Your task to perform on an android device: turn off smart reply in the gmail app Image 0: 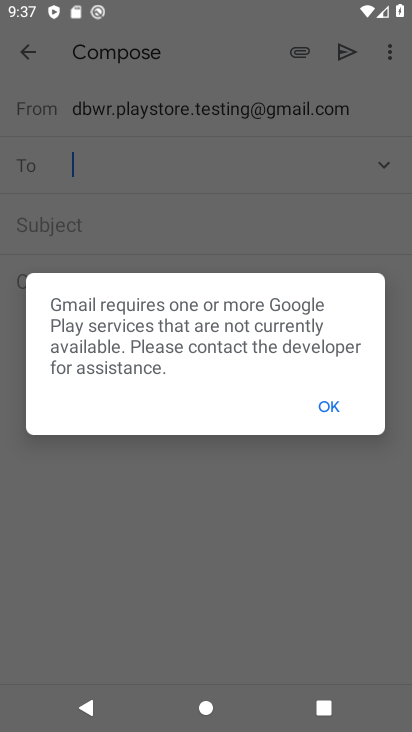
Step 0: press home button
Your task to perform on an android device: turn off smart reply in the gmail app Image 1: 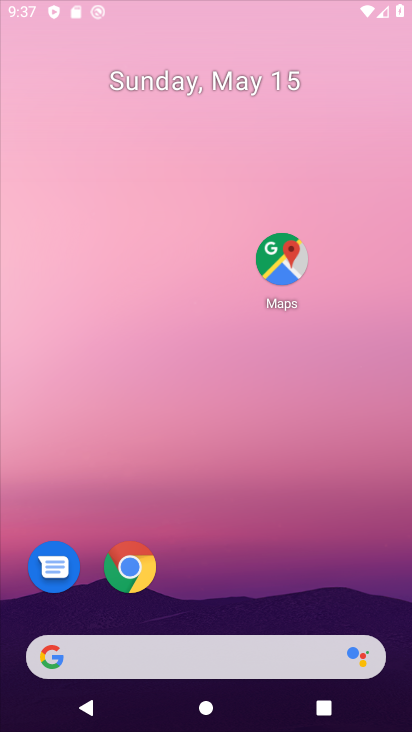
Step 1: drag from (230, 583) to (187, 89)
Your task to perform on an android device: turn off smart reply in the gmail app Image 2: 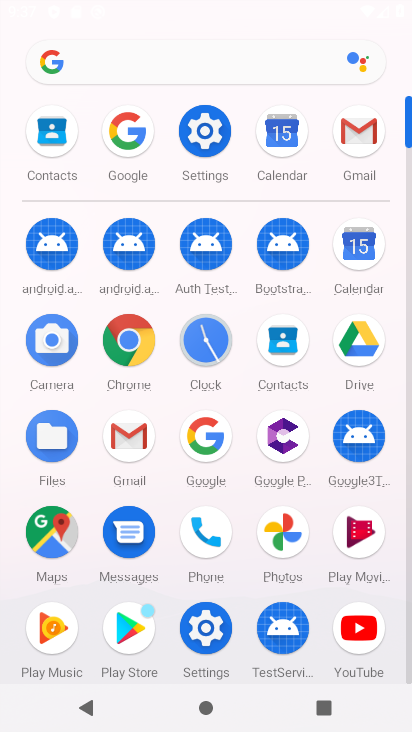
Step 2: click (367, 125)
Your task to perform on an android device: turn off smart reply in the gmail app Image 3: 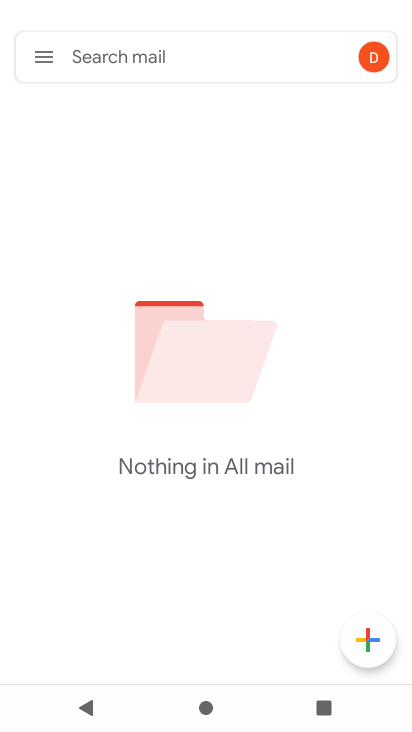
Step 3: click (41, 53)
Your task to perform on an android device: turn off smart reply in the gmail app Image 4: 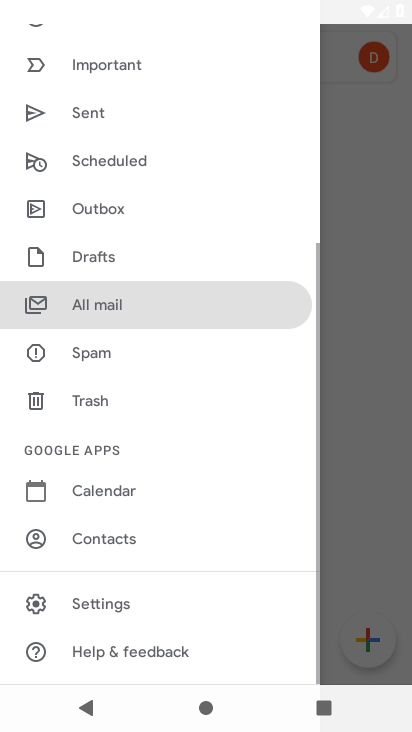
Step 4: click (160, 595)
Your task to perform on an android device: turn off smart reply in the gmail app Image 5: 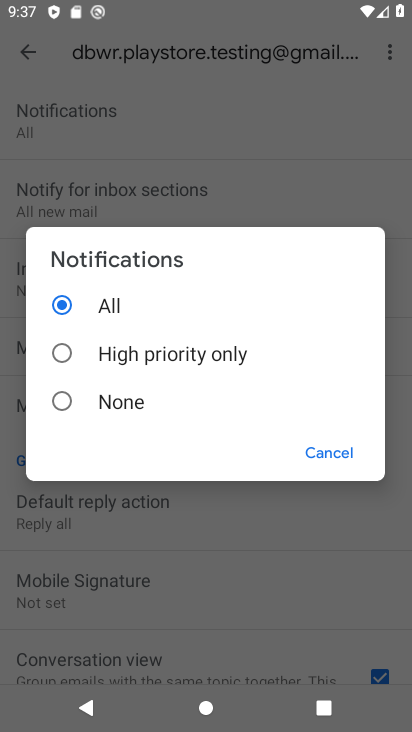
Step 5: click (321, 431)
Your task to perform on an android device: turn off smart reply in the gmail app Image 6: 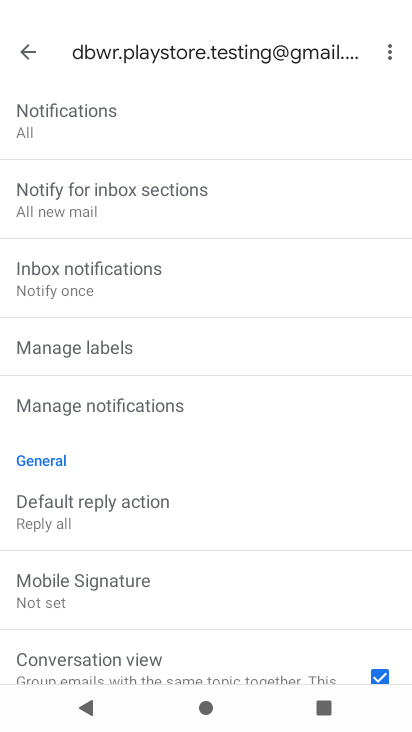
Step 6: task complete